Your task to perform on an android device: turn smart compose on in the gmail app Image 0: 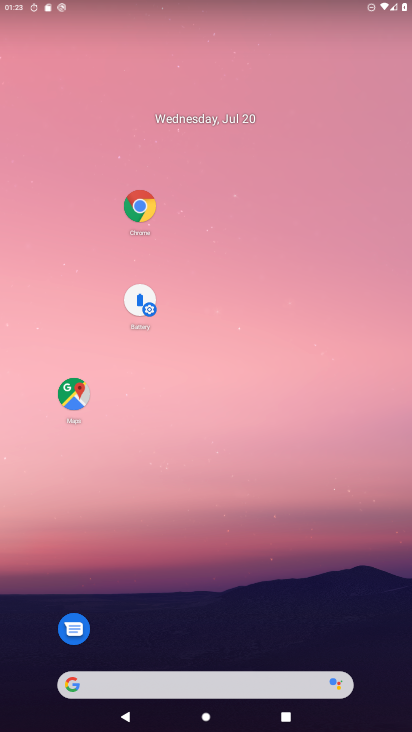
Step 0: drag from (208, 579) to (258, 171)
Your task to perform on an android device: turn smart compose on in the gmail app Image 1: 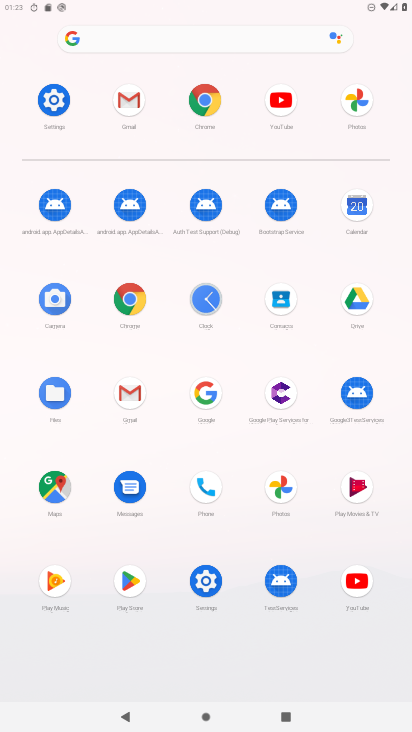
Step 1: click (127, 397)
Your task to perform on an android device: turn smart compose on in the gmail app Image 2: 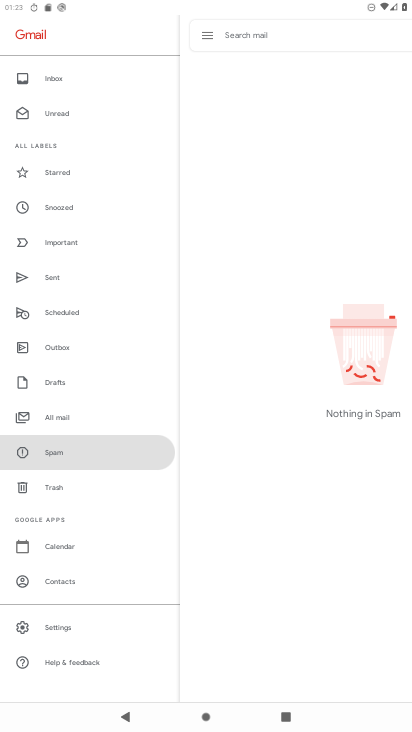
Step 2: drag from (75, 445) to (102, 155)
Your task to perform on an android device: turn smart compose on in the gmail app Image 3: 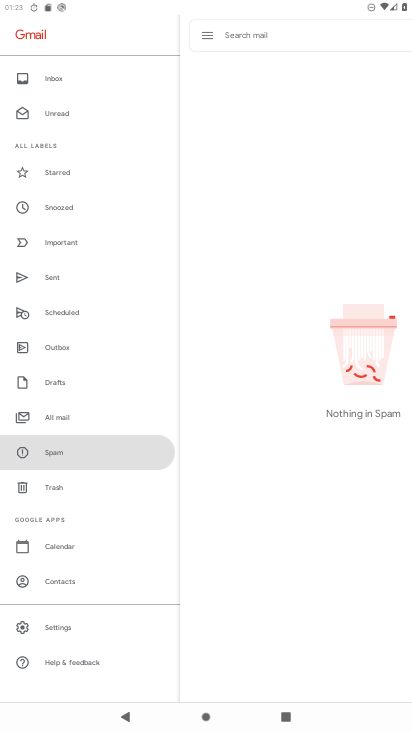
Step 3: click (73, 625)
Your task to perform on an android device: turn smart compose on in the gmail app Image 4: 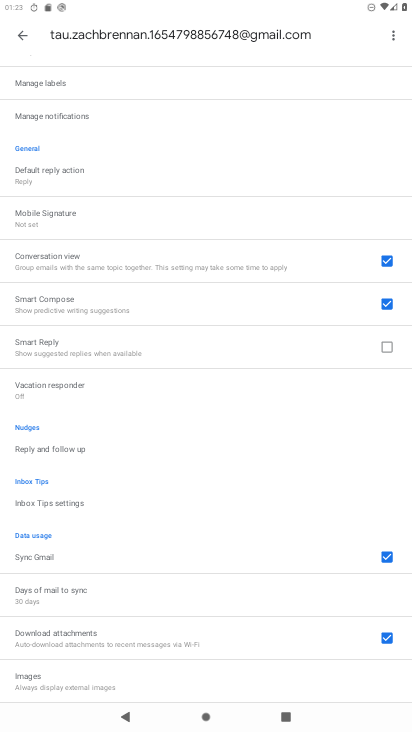
Step 4: task complete